Your task to perform on an android device: Search for seafood restaurants on Google Maps Image 0: 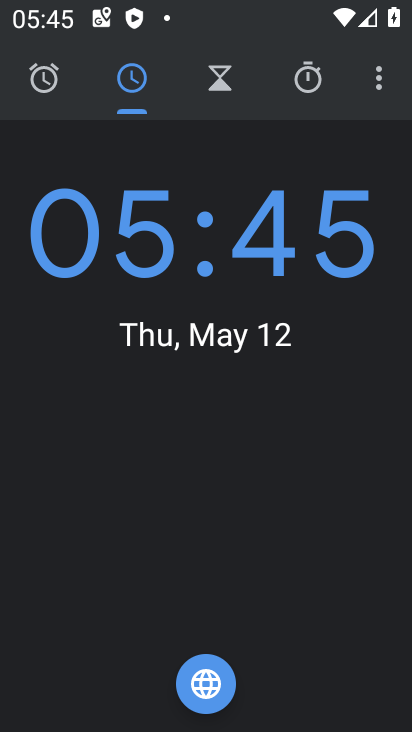
Step 0: press home button
Your task to perform on an android device: Search for seafood restaurants on Google Maps Image 1: 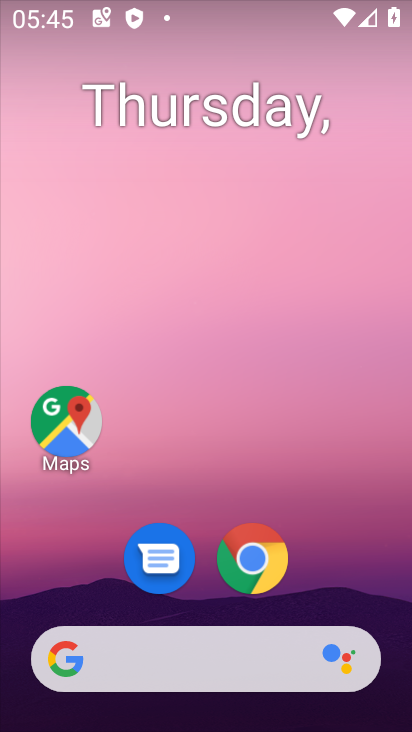
Step 1: click (75, 405)
Your task to perform on an android device: Search for seafood restaurants on Google Maps Image 2: 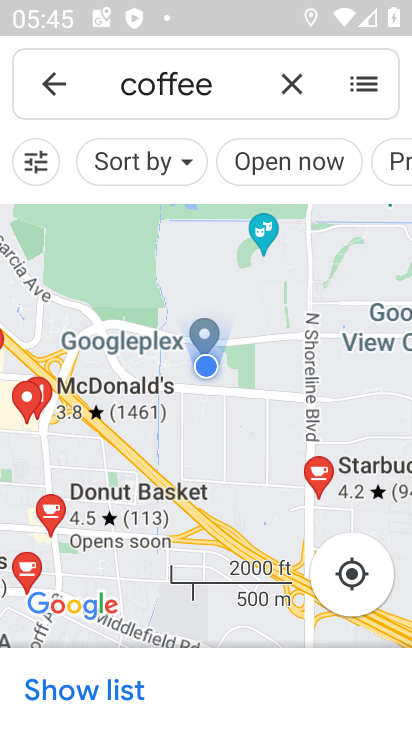
Step 2: click (288, 90)
Your task to perform on an android device: Search for seafood restaurants on Google Maps Image 3: 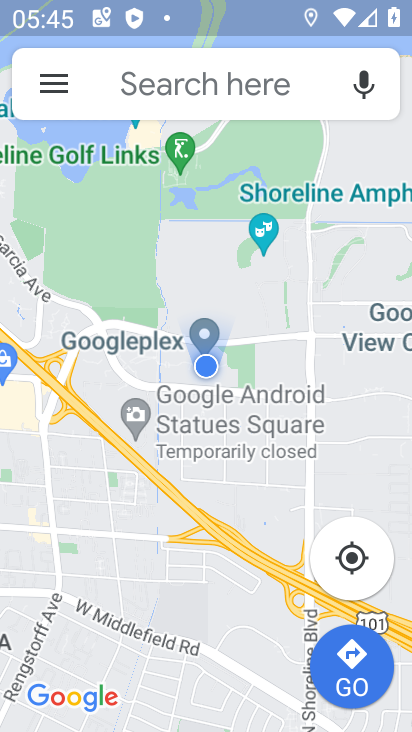
Step 3: click (193, 90)
Your task to perform on an android device: Search for seafood restaurants on Google Maps Image 4: 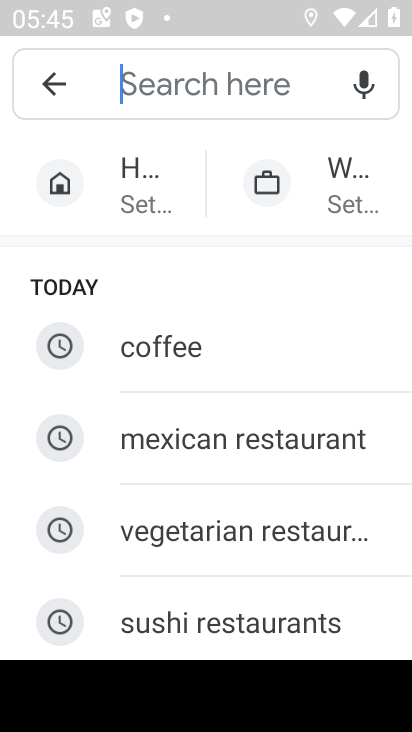
Step 4: drag from (234, 584) to (219, 238)
Your task to perform on an android device: Search for seafood restaurants on Google Maps Image 5: 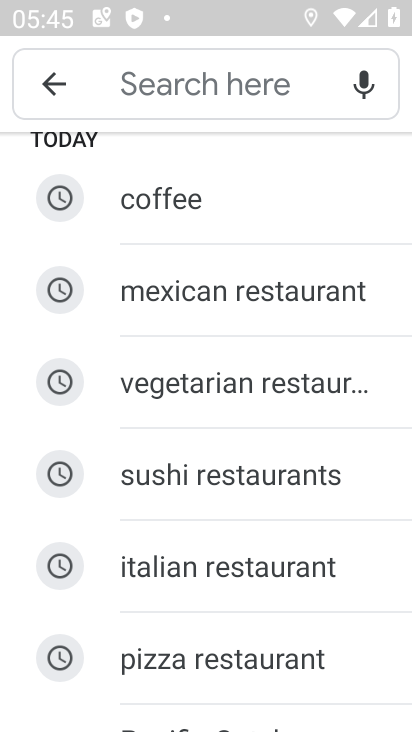
Step 5: drag from (221, 627) to (233, 293)
Your task to perform on an android device: Search for seafood restaurants on Google Maps Image 6: 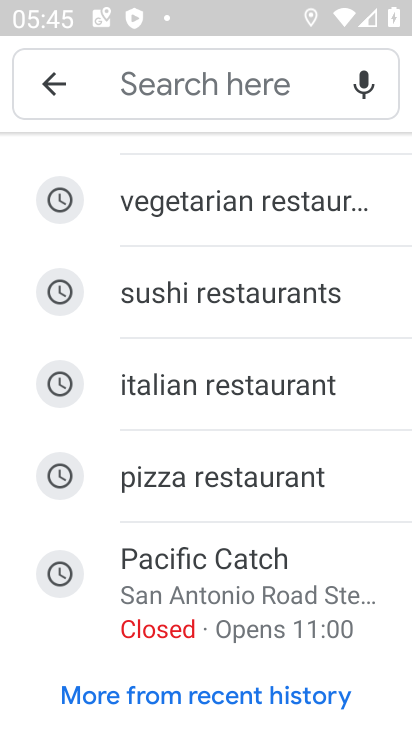
Step 6: type "seafood restaurants"
Your task to perform on an android device: Search for seafood restaurants on Google Maps Image 7: 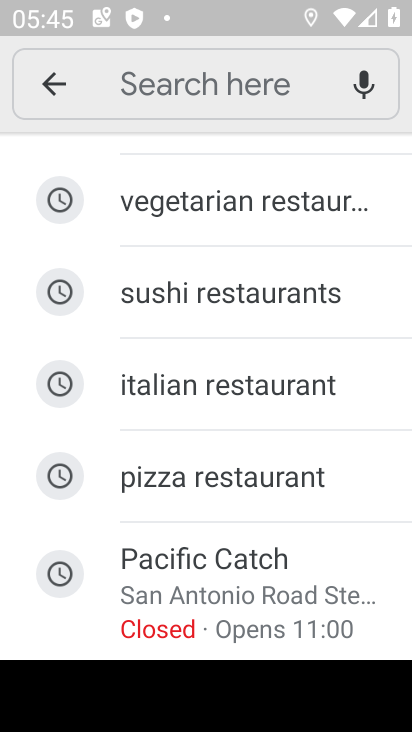
Step 7: click (207, 105)
Your task to perform on an android device: Search for seafood restaurants on Google Maps Image 8: 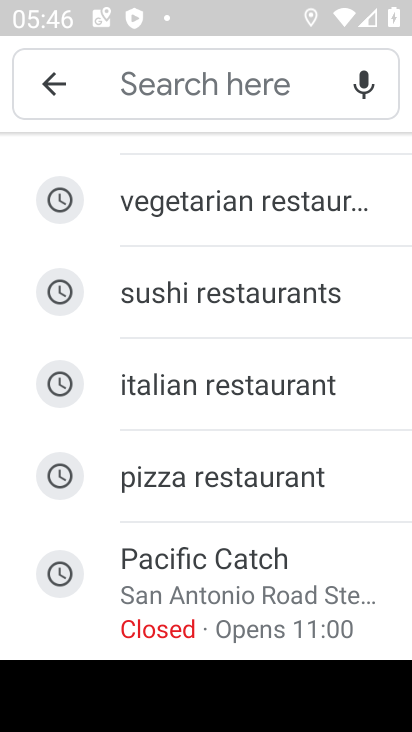
Step 8: type "seafood restaurants"
Your task to perform on an android device: Search for seafood restaurants on Google Maps Image 9: 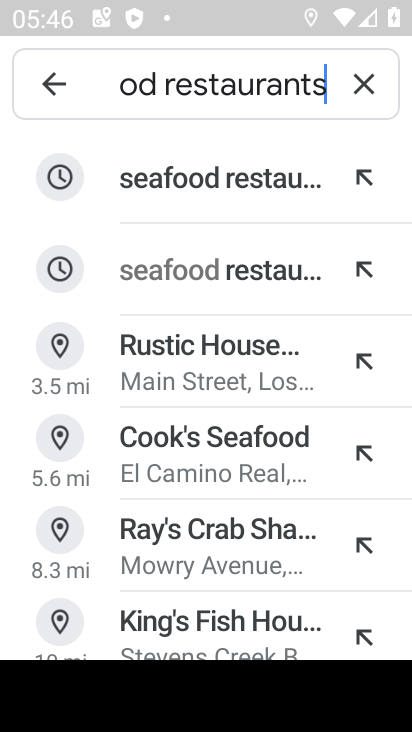
Step 9: click (228, 181)
Your task to perform on an android device: Search for seafood restaurants on Google Maps Image 10: 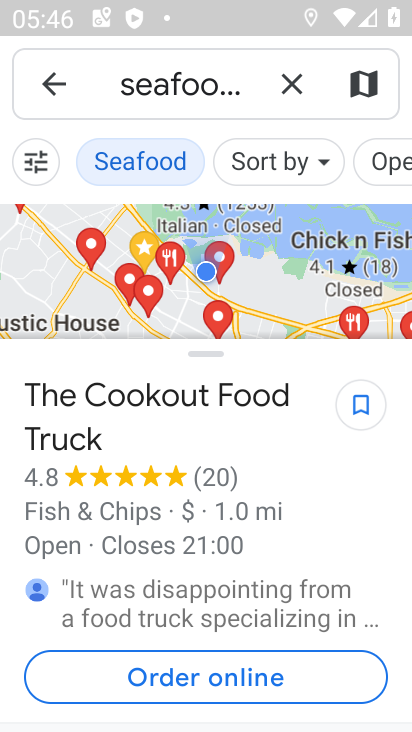
Step 10: task complete